Your task to perform on an android device: Search for vegetarian restaurants on Maps Image 0: 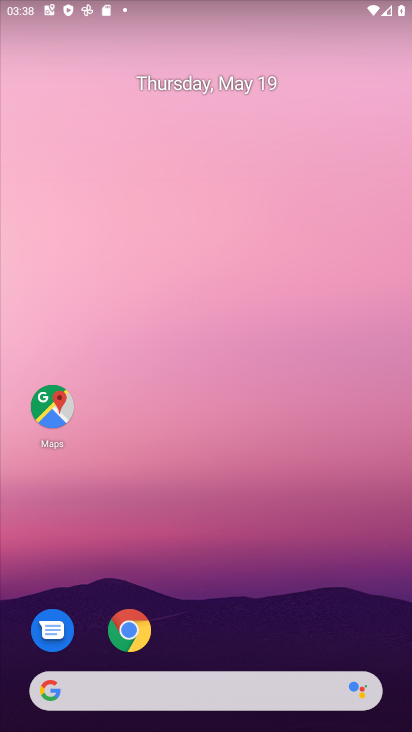
Step 0: click (54, 404)
Your task to perform on an android device: Search for vegetarian restaurants on Maps Image 1: 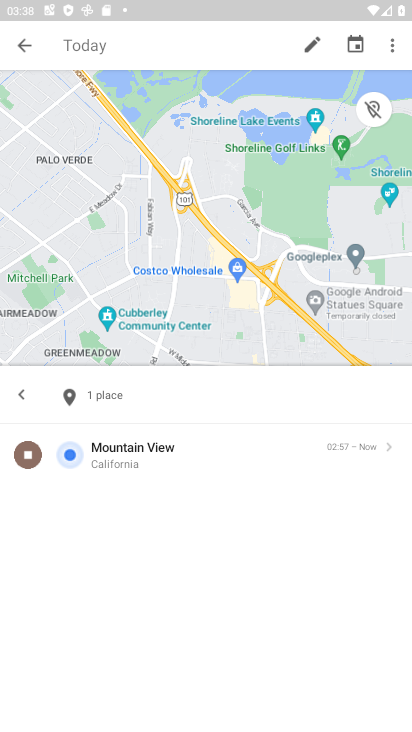
Step 1: press back button
Your task to perform on an android device: Search for vegetarian restaurants on Maps Image 2: 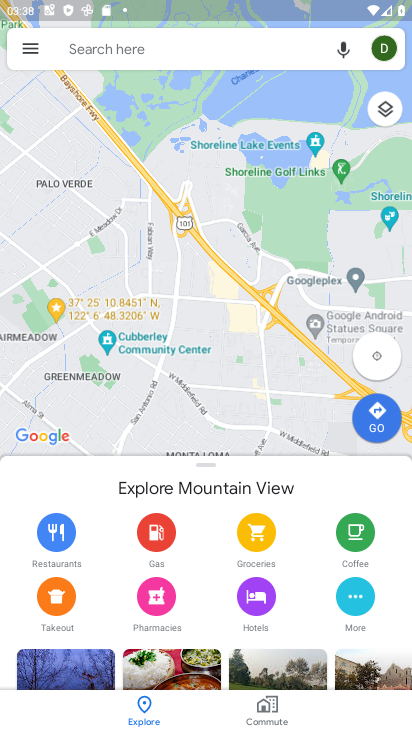
Step 2: click (137, 46)
Your task to perform on an android device: Search for vegetarian restaurants on Maps Image 3: 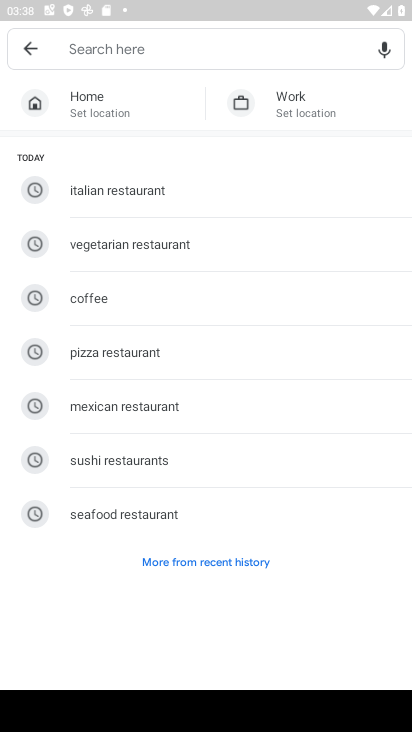
Step 3: type "vegetarian restaurants"
Your task to perform on an android device: Search for vegetarian restaurants on Maps Image 4: 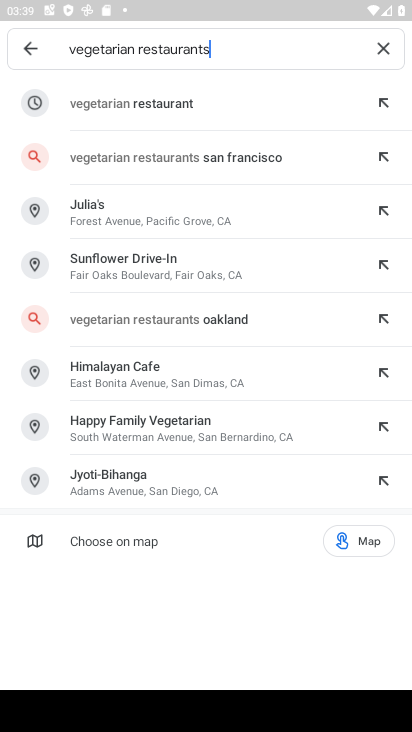
Step 4: click (121, 98)
Your task to perform on an android device: Search for vegetarian restaurants on Maps Image 5: 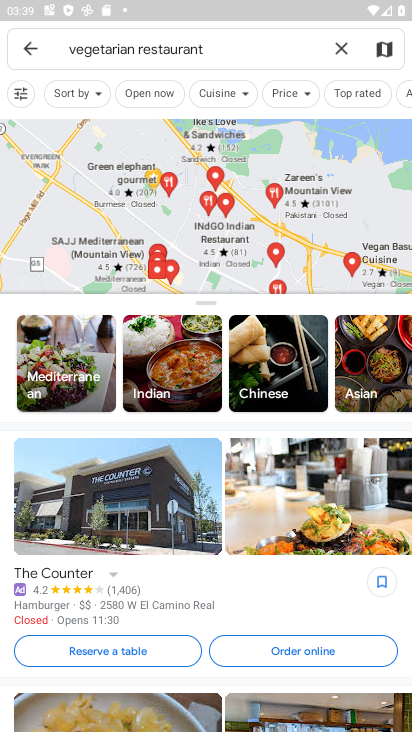
Step 5: task complete